Your task to perform on an android device: Go to wifi settings Image 0: 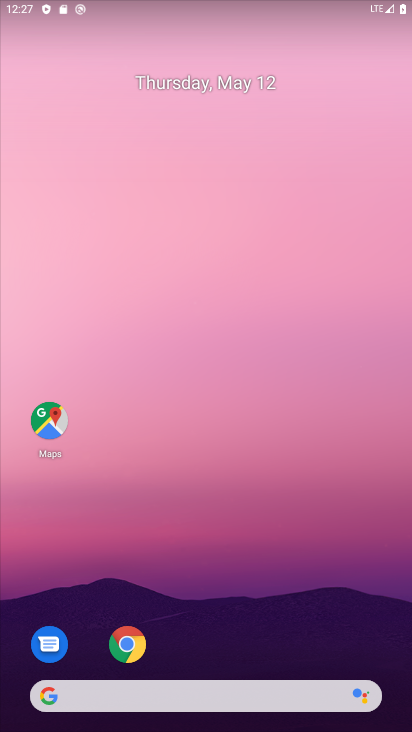
Step 0: drag from (251, 575) to (193, 63)
Your task to perform on an android device: Go to wifi settings Image 1: 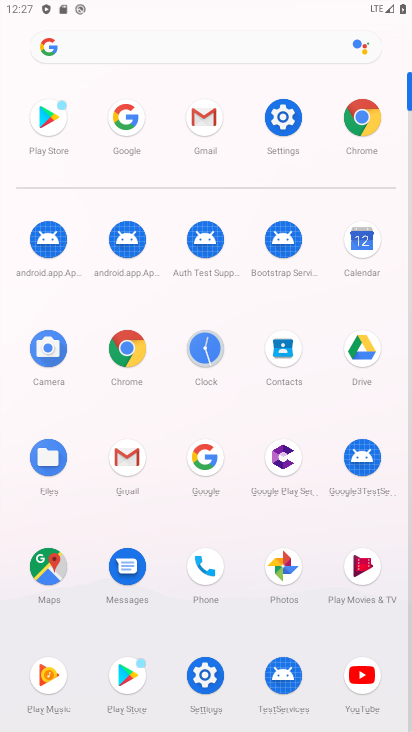
Step 1: click (283, 124)
Your task to perform on an android device: Go to wifi settings Image 2: 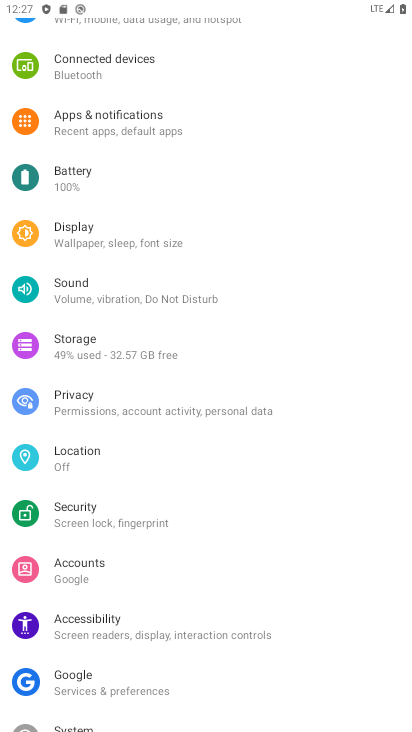
Step 2: drag from (222, 191) to (233, 606)
Your task to perform on an android device: Go to wifi settings Image 3: 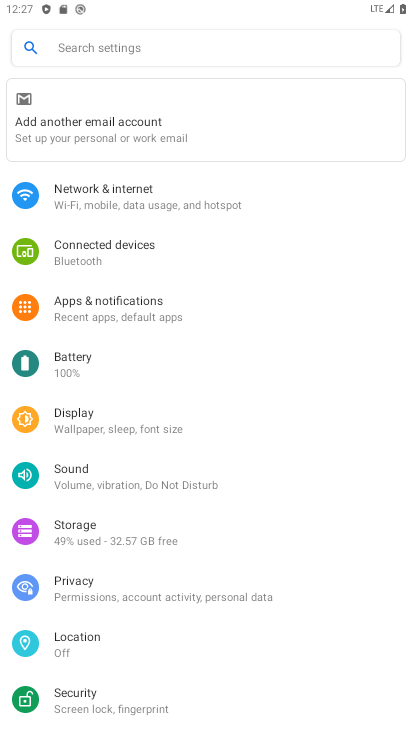
Step 3: click (174, 193)
Your task to perform on an android device: Go to wifi settings Image 4: 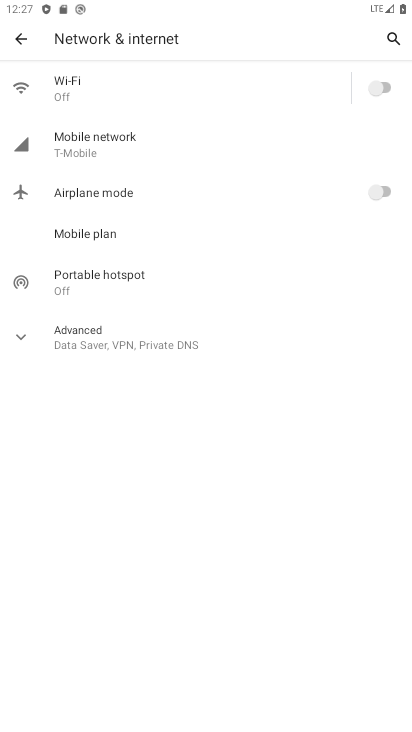
Step 4: click (135, 77)
Your task to perform on an android device: Go to wifi settings Image 5: 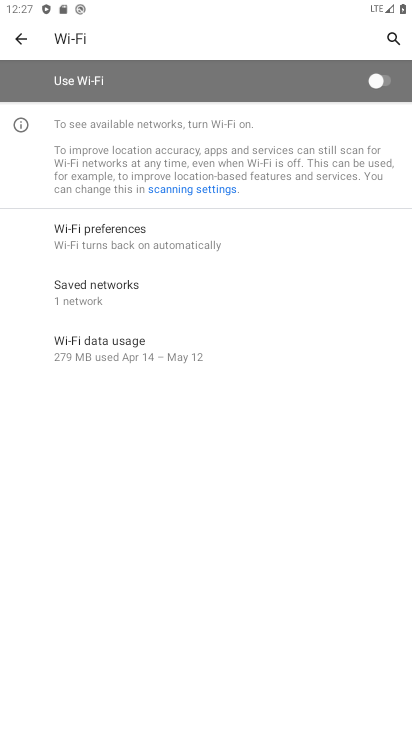
Step 5: task complete